Your task to perform on an android device: Open Google Chrome and open the bookmarks view Image 0: 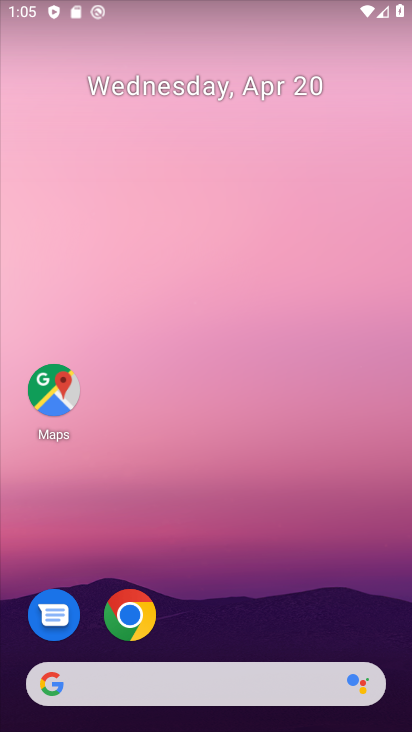
Step 0: click (132, 610)
Your task to perform on an android device: Open Google Chrome and open the bookmarks view Image 1: 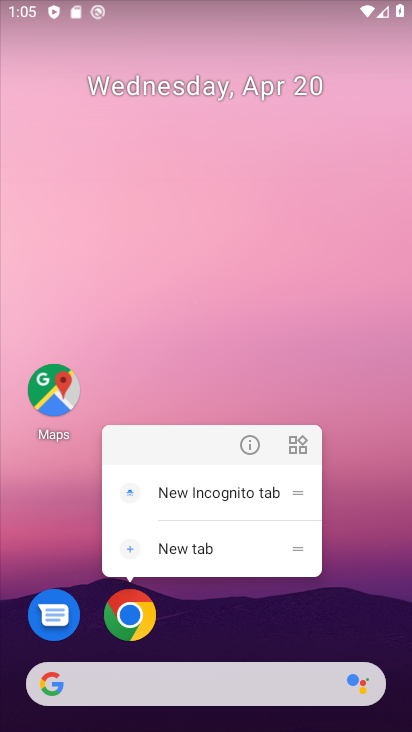
Step 1: click (132, 610)
Your task to perform on an android device: Open Google Chrome and open the bookmarks view Image 2: 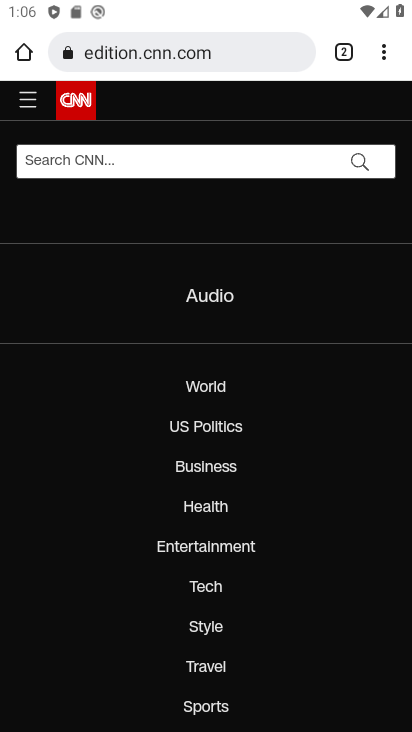
Step 2: click (381, 47)
Your task to perform on an android device: Open Google Chrome and open the bookmarks view Image 3: 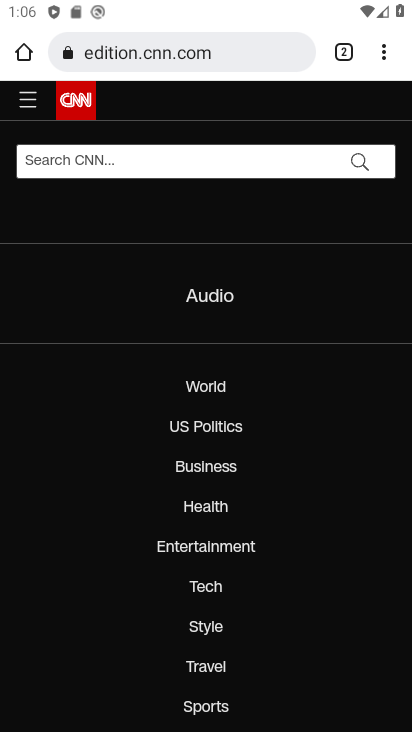
Step 3: click (381, 47)
Your task to perform on an android device: Open Google Chrome and open the bookmarks view Image 4: 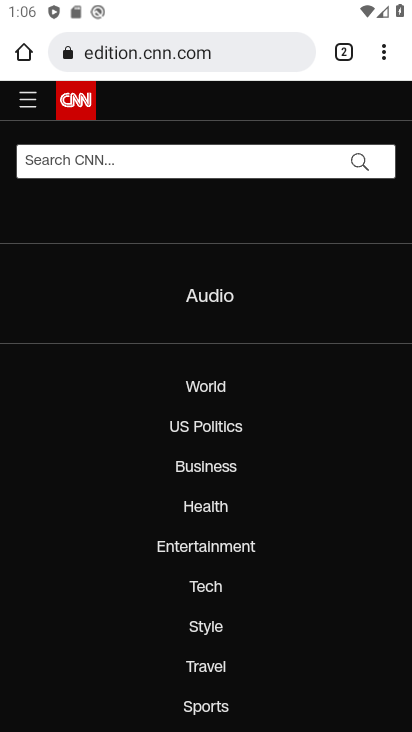
Step 4: click (381, 47)
Your task to perform on an android device: Open Google Chrome and open the bookmarks view Image 5: 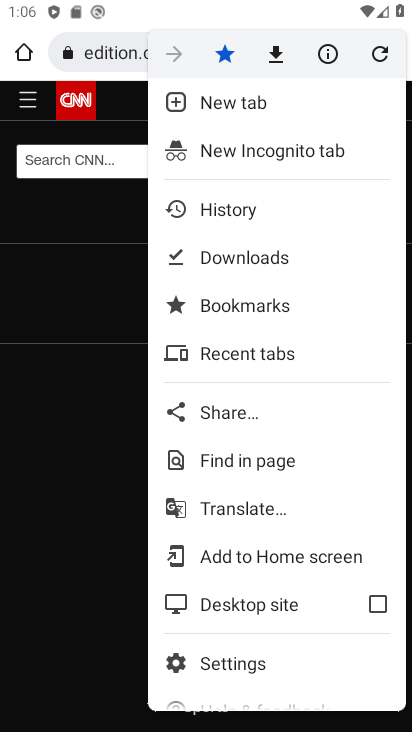
Step 5: click (250, 299)
Your task to perform on an android device: Open Google Chrome and open the bookmarks view Image 6: 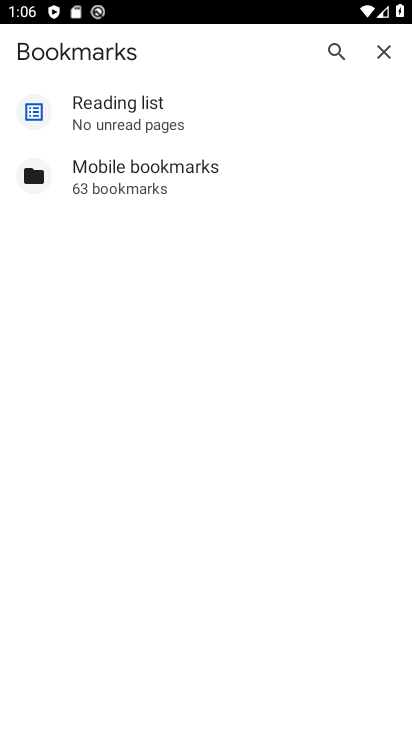
Step 6: click (121, 167)
Your task to perform on an android device: Open Google Chrome and open the bookmarks view Image 7: 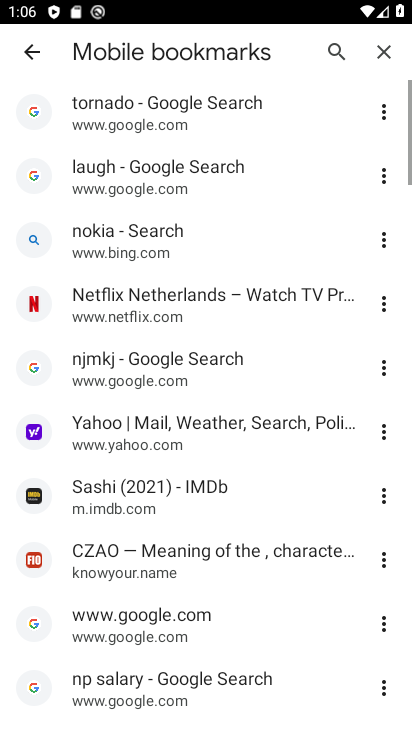
Step 7: task complete